Your task to perform on an android device: find which apps use the phone's location Image 0: 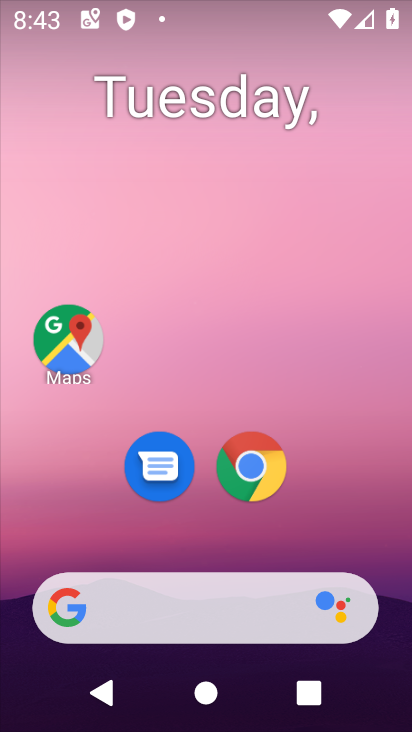
Step 0: drag from (386, 532) to (304, 31)
Your task to perform on an android device: find which apps use the phone's location Image 1: 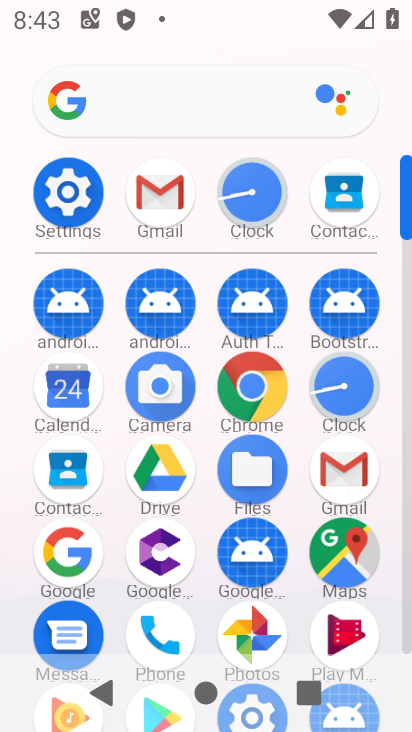
Step 1: click (57, 189)
Your task to perform on an android device: find which apps use the phone's location Image 2: 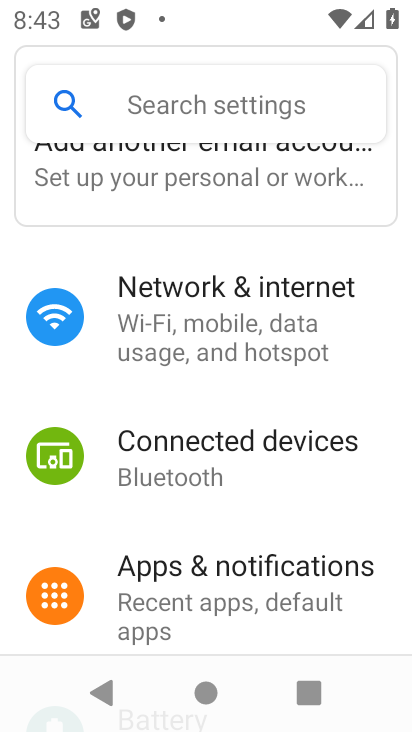
Step 2: drag from (298, 631) to (131, 4)
Your task to perform on an android device: find which apps use the phone's location Image 3: 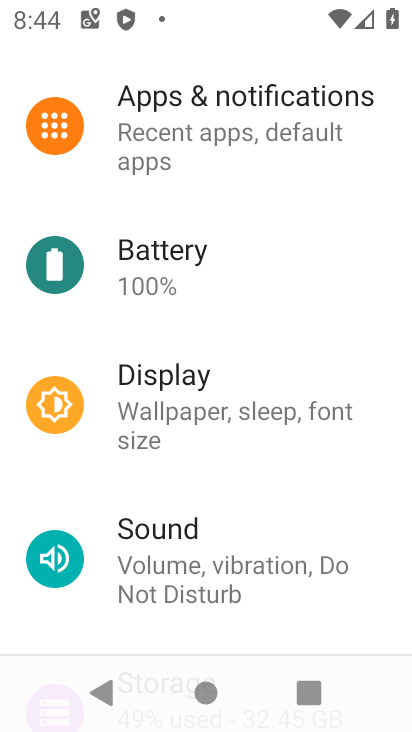
Step 3: drag from (302, 545) to (320, 58)
Your task to perform on an android device: find which apps use the phone's location Image 4: 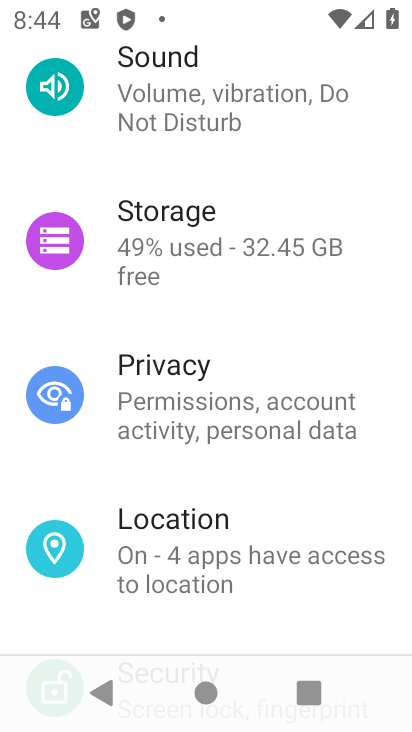
Step 4: drag from (299, 542) to (246, 347)
Your task to perform on an android device: find which apps use the phone's location Image 5: 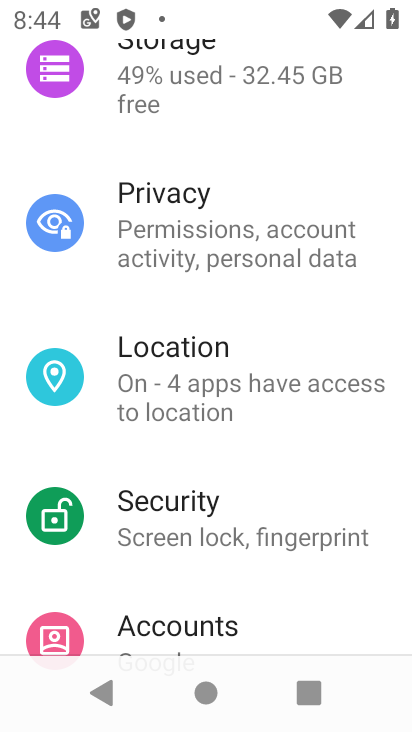
Step 5: click (270, 434)
Your task to perform on an android device: find which apps use the phone's location Image 6: 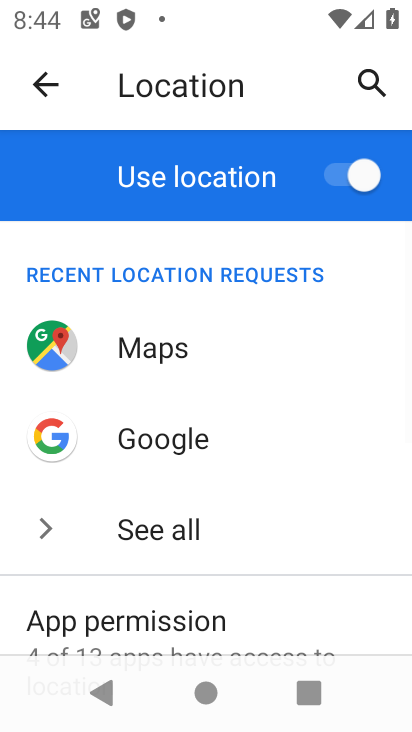
Step 6: drag from (297, 557) to (258, 248)
Your task to perform on an android device: find which apps use the phone's location Image 7: 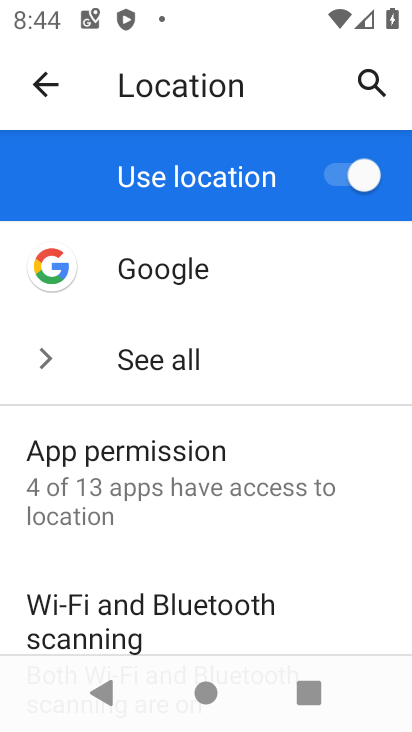
Step 7: click (230, 353)
Your task to perform on an android device: find which apps use the phone's location Image 8: 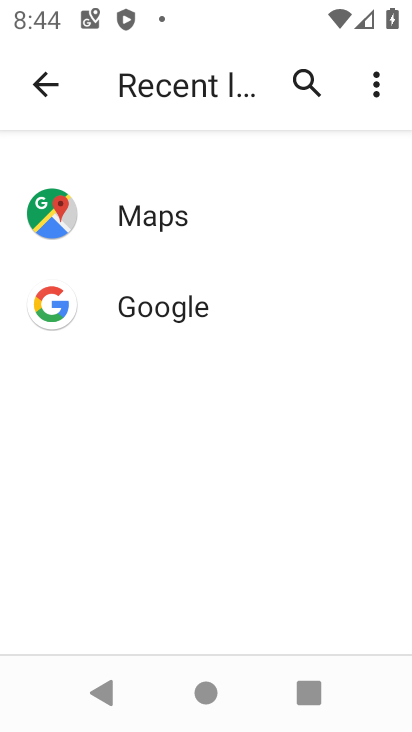
Step 8: task complete